Your task to perform on an android device: toggle show notifications on the lock screen Image 0: 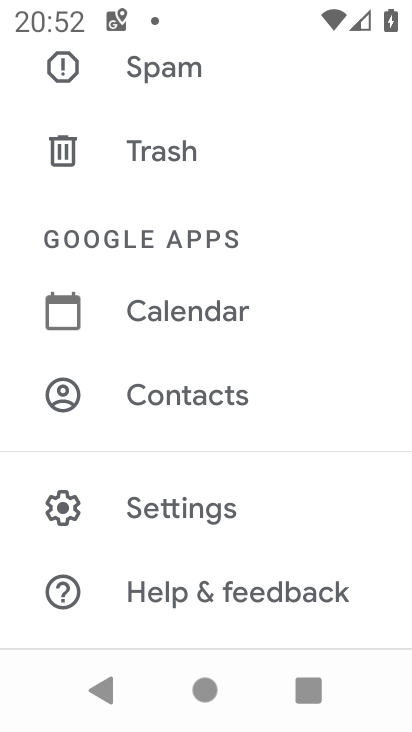
Step 0: press home button
Your task to perform on an android device: toggle show notifications on the lock screen Image 1: 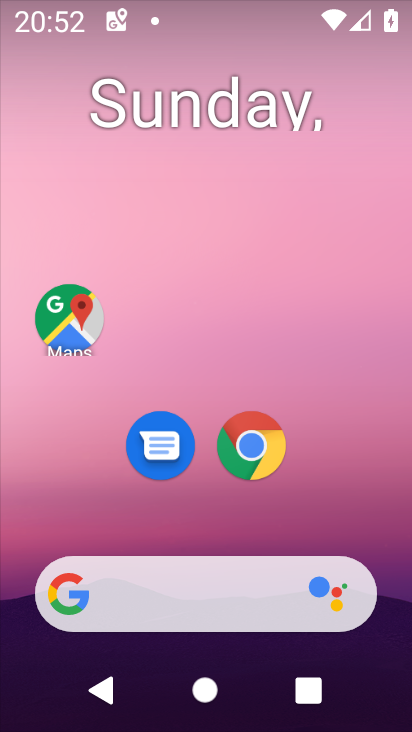
Step 1: click (232, 456)
Your task to perform on an android device: toggle show notifications on the lock screen Image 2: 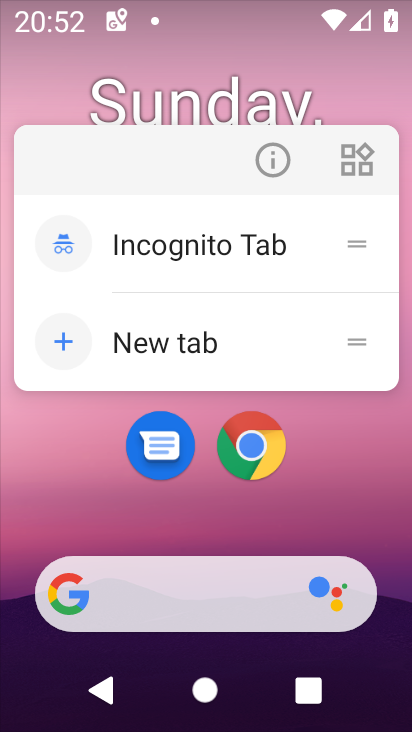
Step 2: click (246, 450)
Your task to perform on an android device: toggle show notifications on the lock screen Image 3: 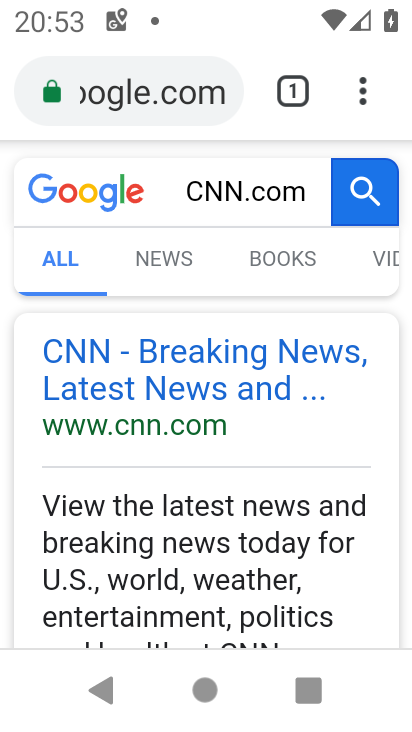
Step 3: click (360, 87)
Your task to perform on an android device: toggle show notifications on the lock screen Image 4: 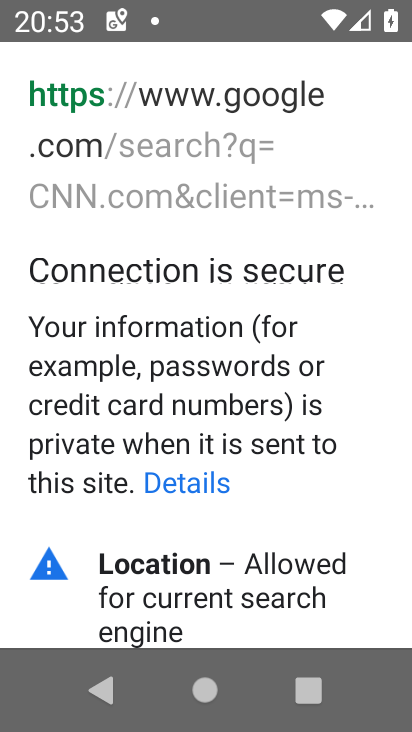
Step 4: press back button
Your task to perform on an android device: toggle show notifications on the lock screen Image 5: 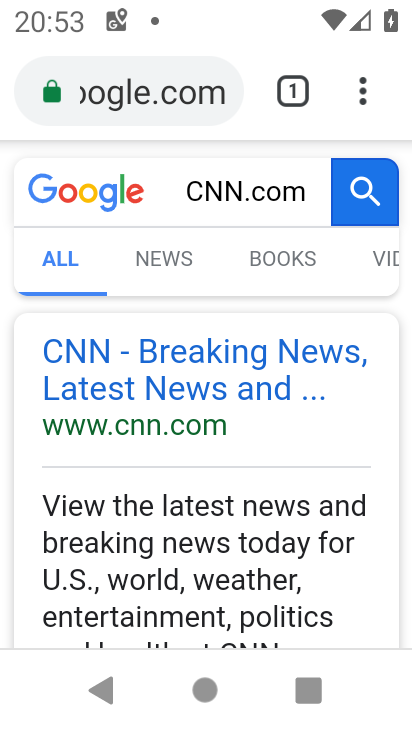
Step 5: click (362, 91)
Your task to perform on an android device: toggle show notifications on the lock screen Image 6: 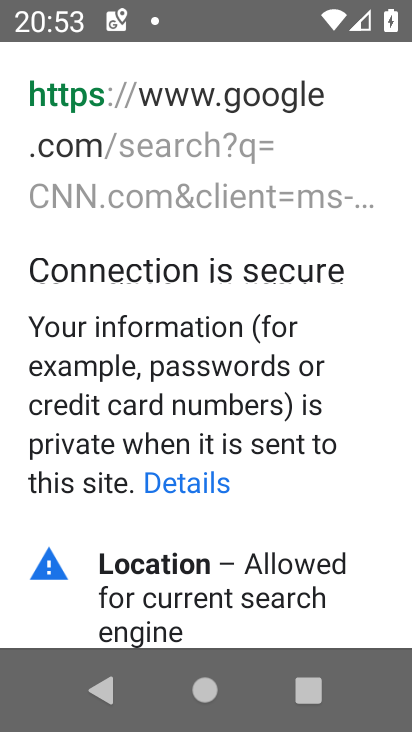
Step 6: press back button
Your task to perform on an android device: toggle show notifications on the lock screen Image 7: 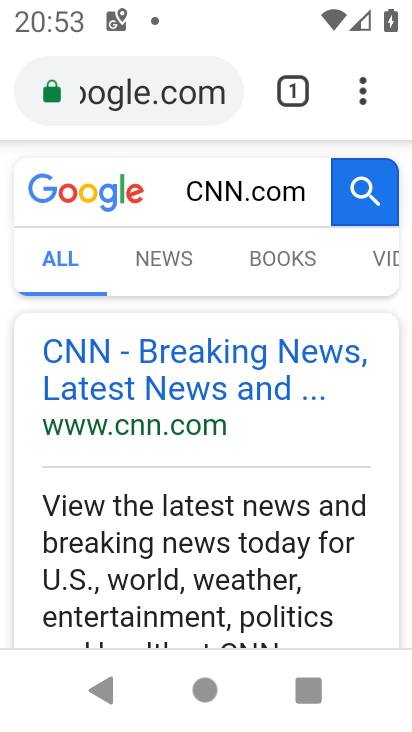
Step 7: click (365, 92)
Your task to perform on an android device: toggle show notifications on the lock screen Image 8: 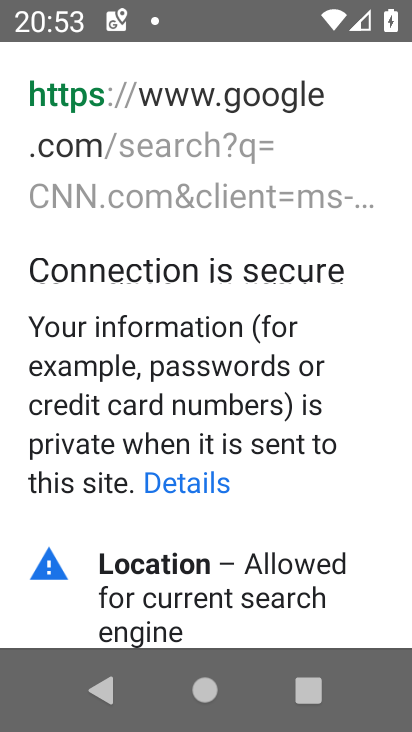
Step 8: press back button
Your task to perform on an android device: toggle show notifications on the lock screen Image 9: 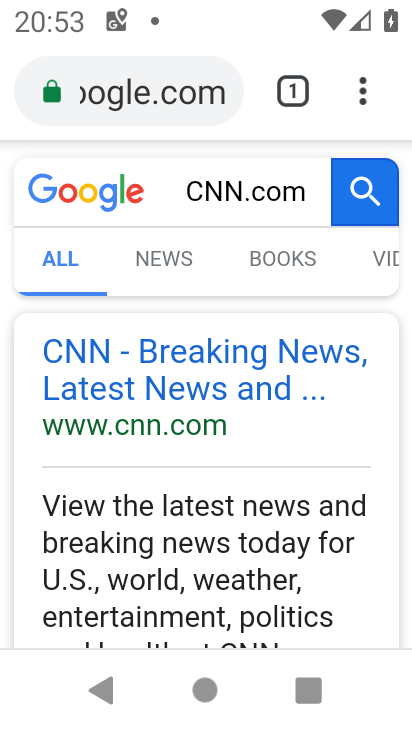
Step 9: click (373, 90)
Your task to perform on an android device: toggle show notifications on the lock screen Image 10: 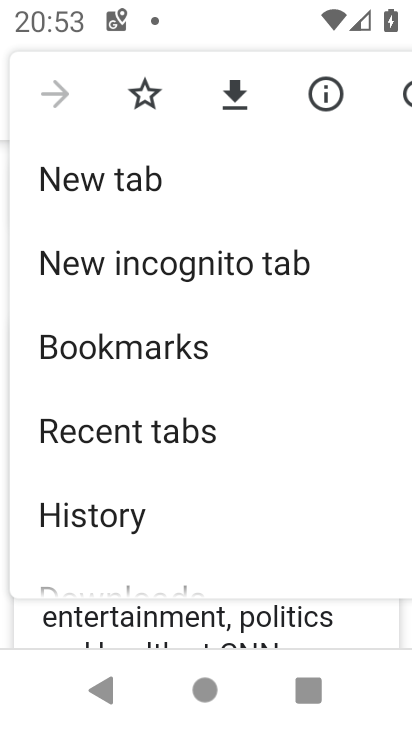
Step 10: press home button
Your task to perform on an android device: toggle show notifications on the lock screen Image 11: 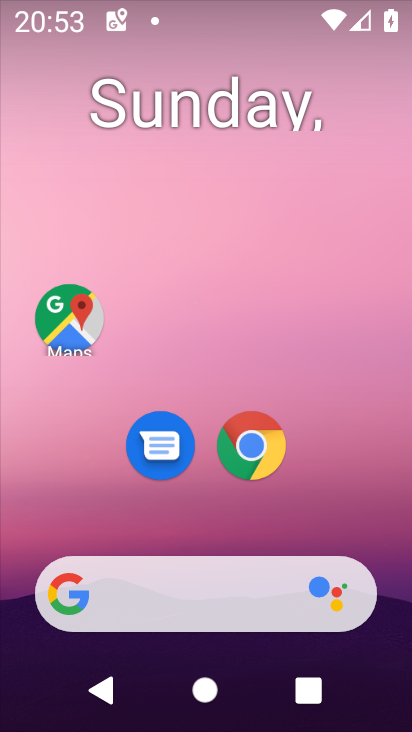
Step 11: drag from (33, 606) to (290, 60)
Your task to perform on an android device: toggle show notifications on the lock screen Image 12: 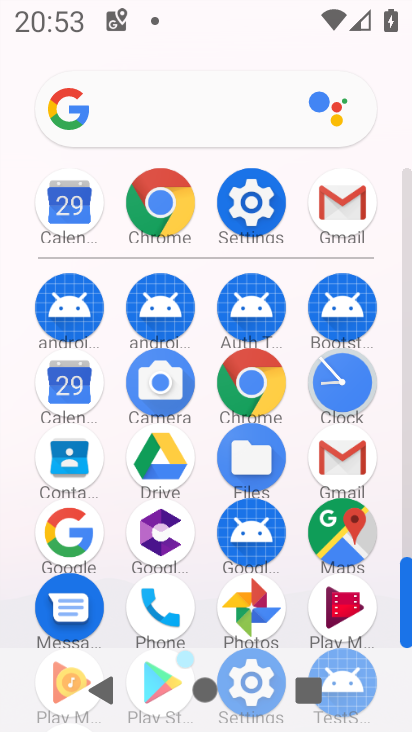
Step 12: click (150, 205)
Your task to perform on an android device: toggle show notifications on the lock screen Image 13: 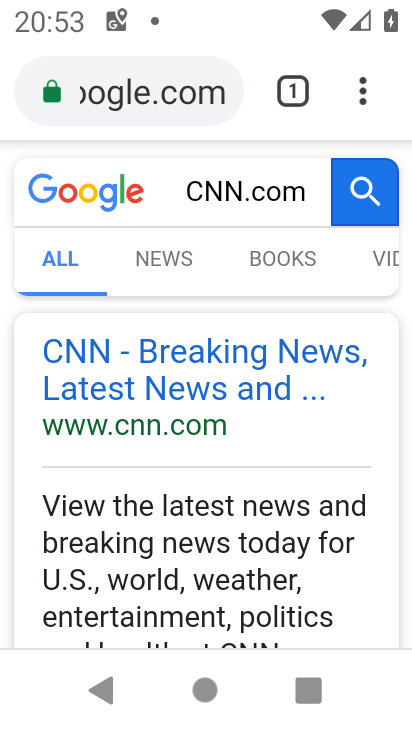
Step 13: press back button
Your task to perform on an android device: toggle show notifications on the lock screen Image 14: 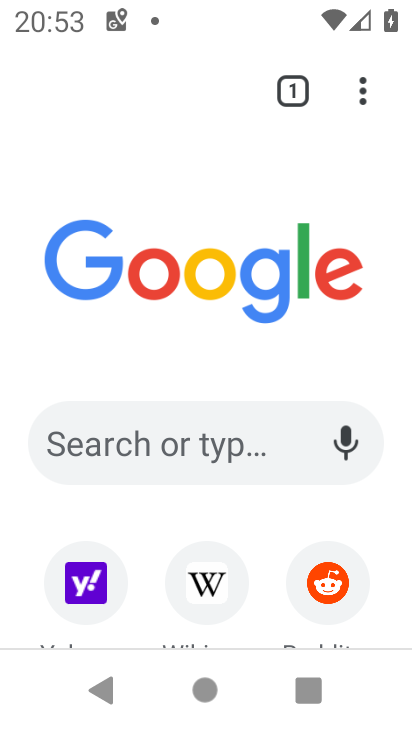
Step 14: press home button
Your task to perform on an android device: toggle show notifications on the lock screen Image 15: 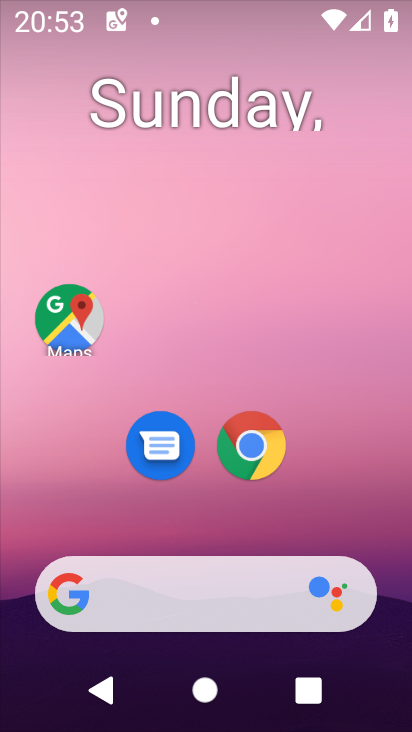
Step 15: drag from (34, 528) to (197, 151)
Your task to perform on an android device: toggle show notifications on the lock screen Image 16: 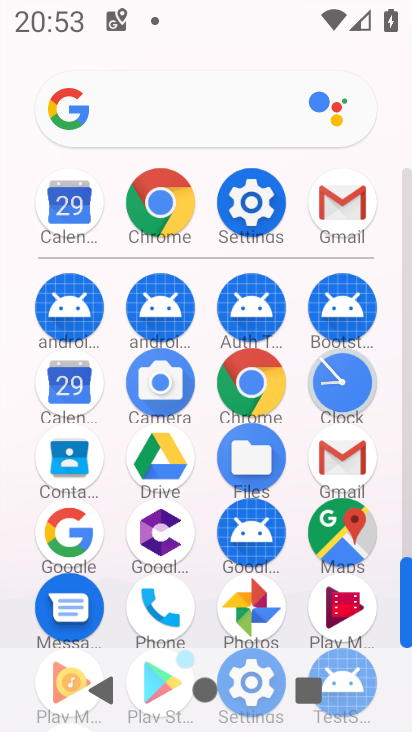
Step 16: click (238, 201)
Your task to perform on an android device: toggle show notifications on the lock screen Image 17: 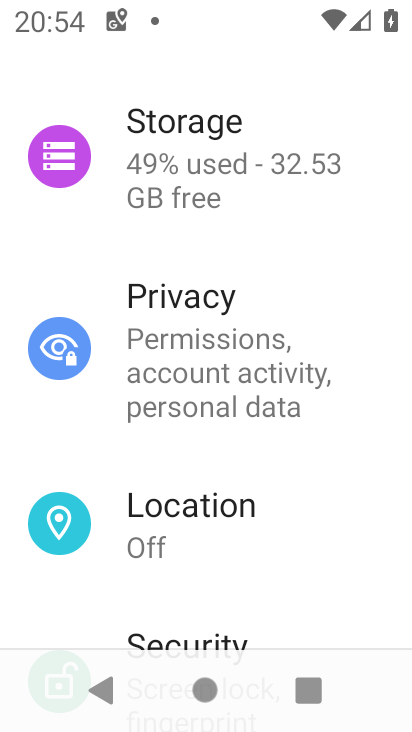
Step 17: drag from (2, 618) to (219, 185)
Your task to perform on an android device: toggle show notifications on the lock screen Image 18: 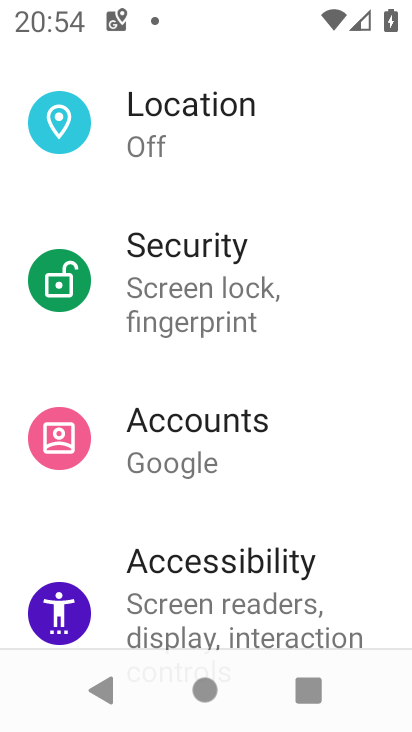
Step 18: drag from (179, 155) to (55, 601)
Your task to perform on an android device: toggle show notifications on the lock screen Image 19: 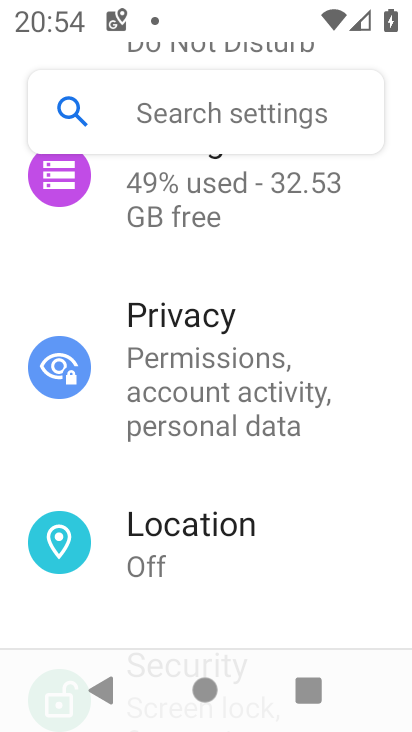
Step 19: drag from (216, 221) to (148, 615)
Your task to perform on an android device: toggle show notifications on the lock screen Image 20: 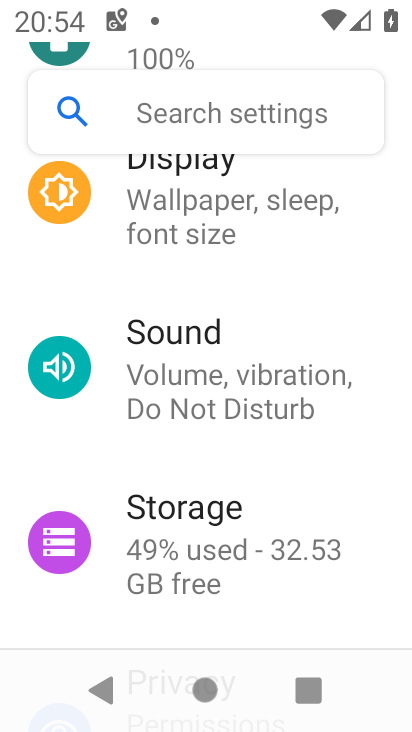
Step 20: drag from (227, 226) to (196, 568)
Your task to perform on an android device: toggle show notifications on the lock screen Image 21: 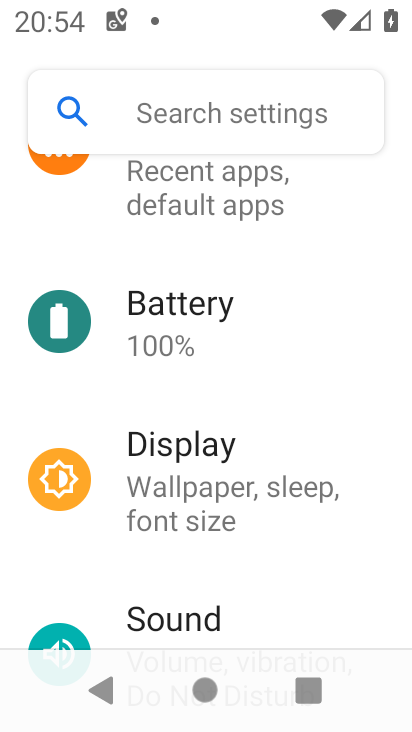
Step 21: drag from (214, 210) to (173, 603)
Your task to perform on an android device: toggle show notifications on the lock screen Image 22: 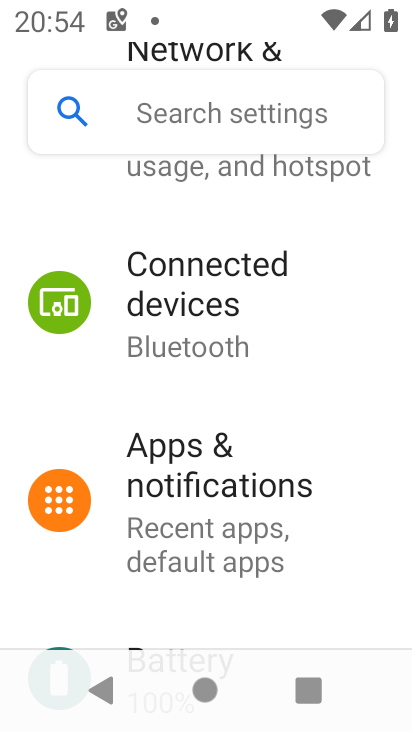
Step 22: click (188, 519)
Your task to perform on an android device: toggle show notifications on the lock screen Image 23: 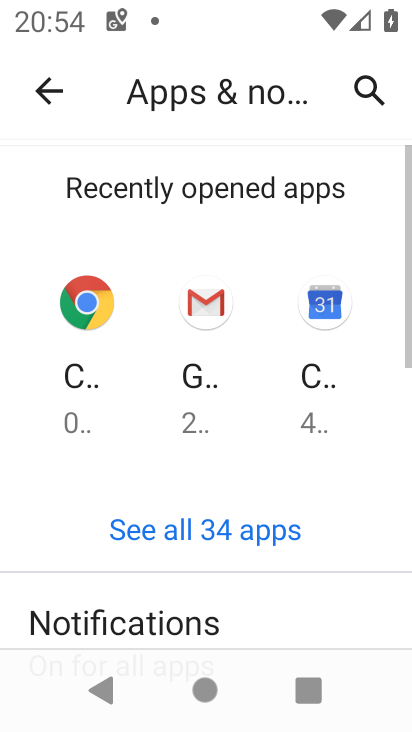
Step 23: drag from (1, 615) to (238, 93)
Your task to perform on an android device: toggle show notifications on the lock screen Image 24: 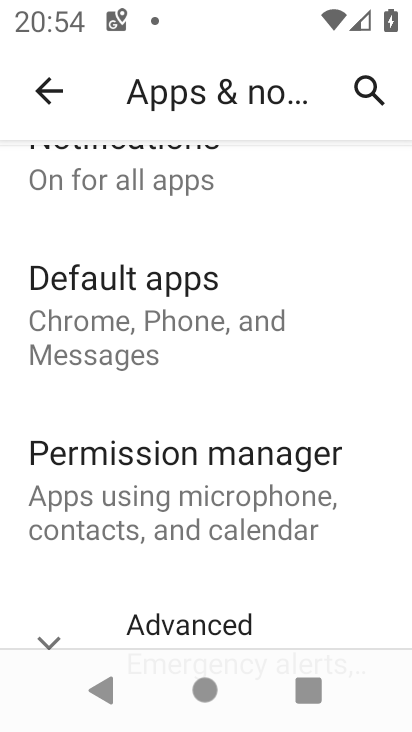
Step 24: click (120, 171)
Your task to perform on an android device: toggle show notifications on the lock screen Image 25: 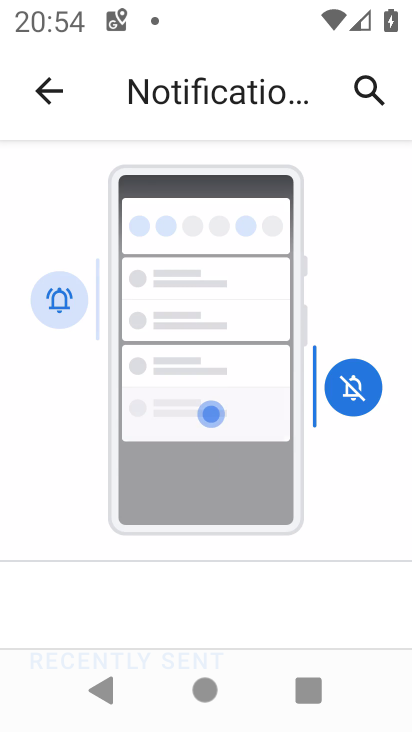
Step 25: drag from (4, 578) to (262, 99)
Your task to perform on an android device: toggle show notifications on the lock screen Image 26: 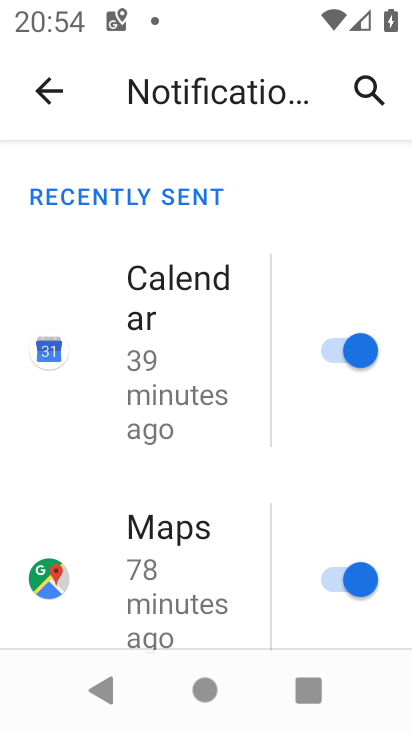
Step 26: drag from (16, 482) to (241, 113)
Your task to perform on an android device: toggle show notifications on the lock screen Image 27: 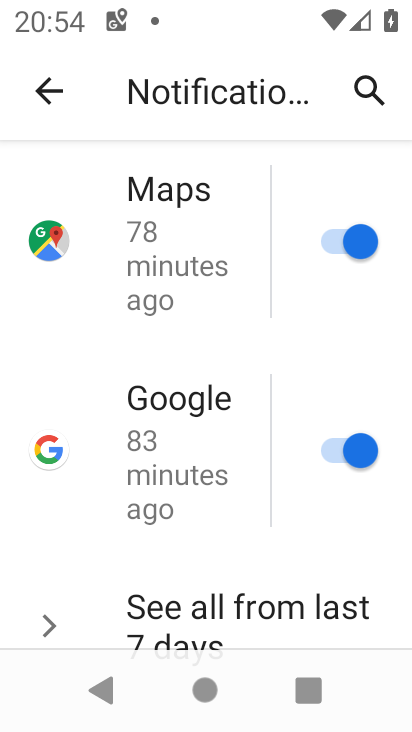
Step 27: drag from (27, 546) to (248, 175)
Your task to perform on an android device: toggle show notifications on the lock screen Image 28: 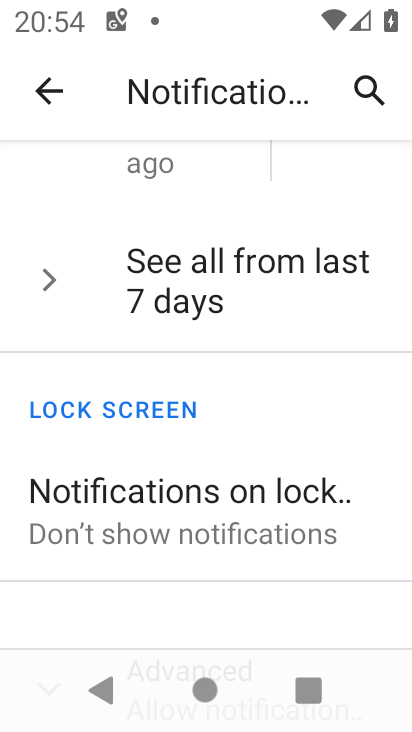
Step 28: click (190, 506)
Your task to perform on an android device: toggle show notifications on the lock screen Image 29: 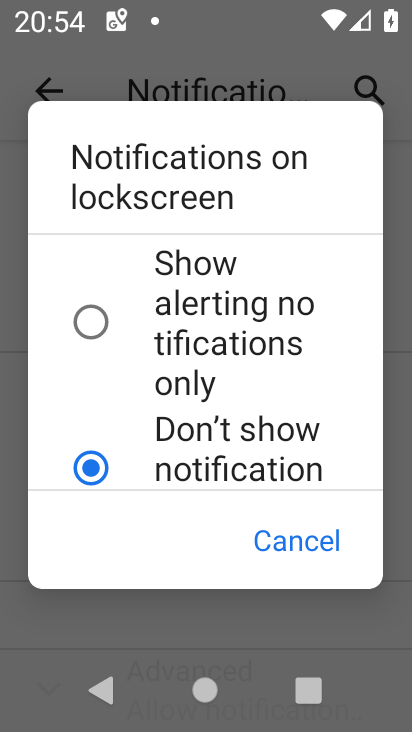
Step 29: click (95, 322)
Your task to perform on an android device: toggle show notifications on the lock screen Image 30: 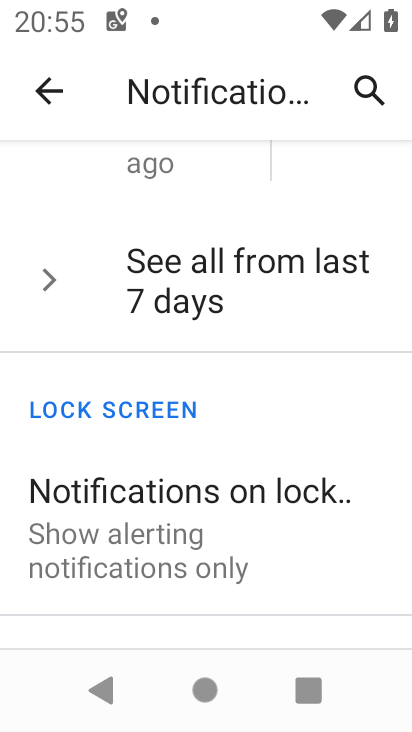
Step 30: task complete